Your task to perform on an android device: change your default location settings in chrome Image 0: 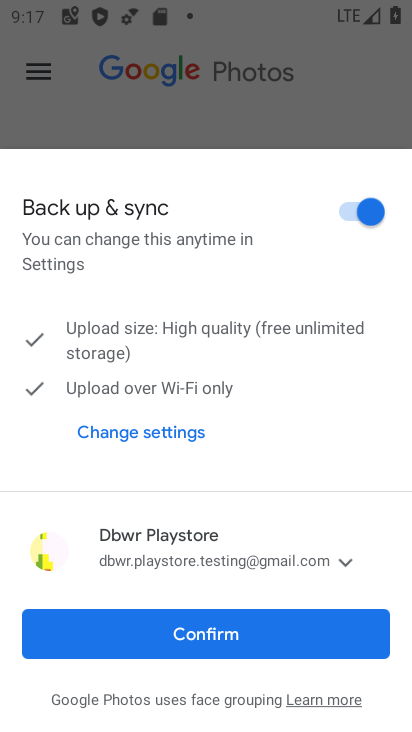
Step 0: click (252, 643)
Your task to perform on an android device: change your default location settings in chrome Image 1: 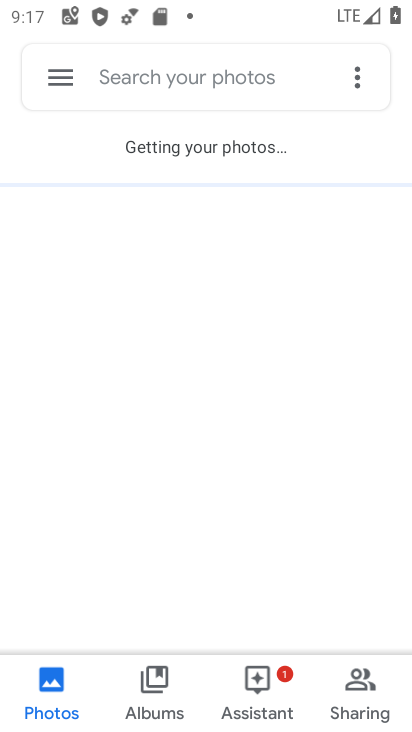
Step 1: press home button
Your task to perform on an android device: change your default location settings in chrome Image 2: 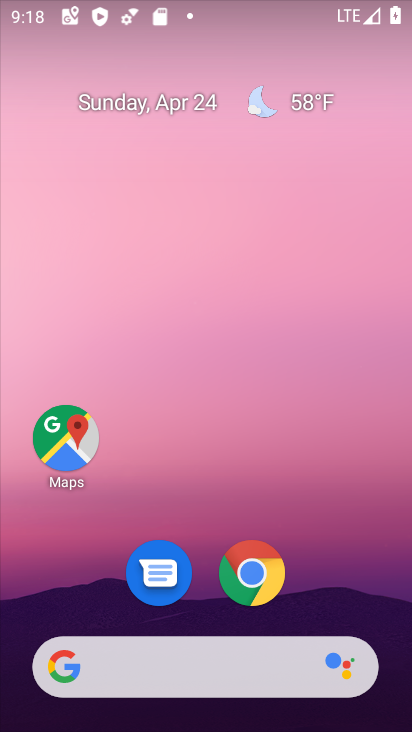
Step 2: click (259, 570)
Your task to perform on an android device: change your default location settings in chrome Image 3: 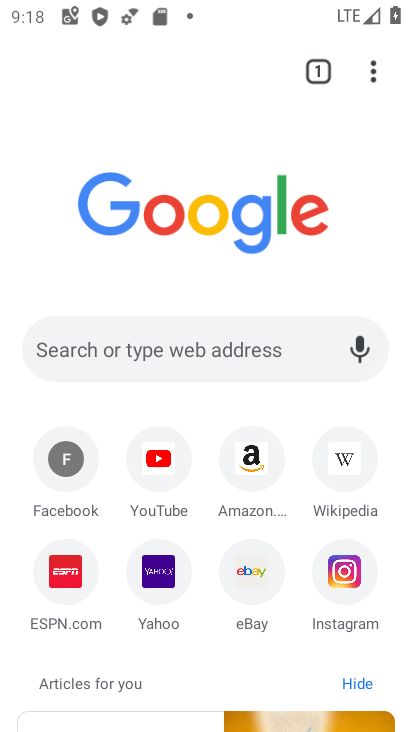
Step 3: click (380, 61)
Your task to perform on an android device: change your default location settings in chrome Image 4: 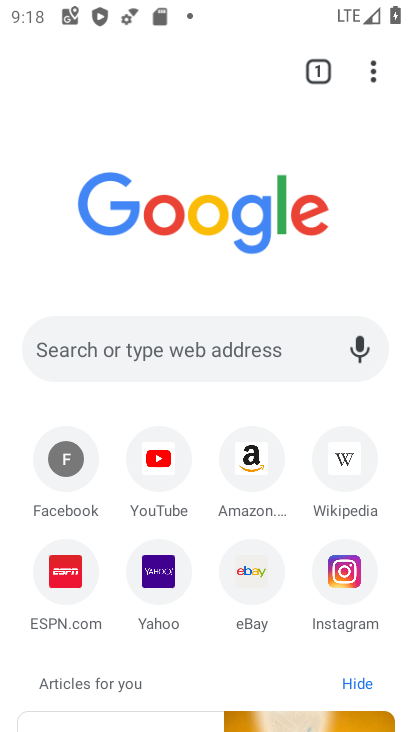
Step 4: drag from (379, 67) to (173, 550)
Your task to perform on an android device: change your default location settings in chrome Image 5: 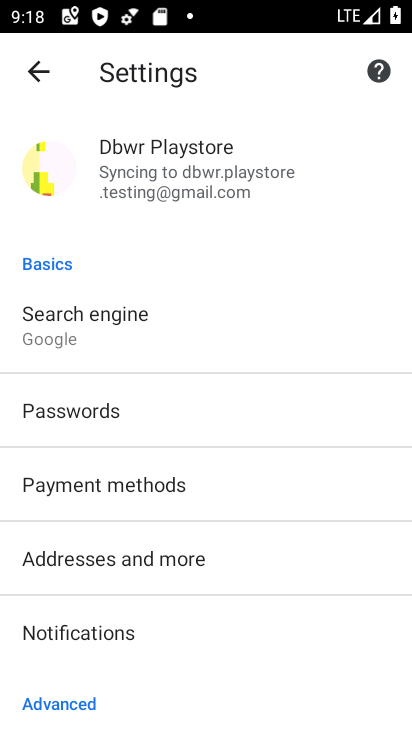
Step 5: drag from (218, 628) to (256, 151)
Your task to perform on an android device: change your default location settings in chrome Image 6: 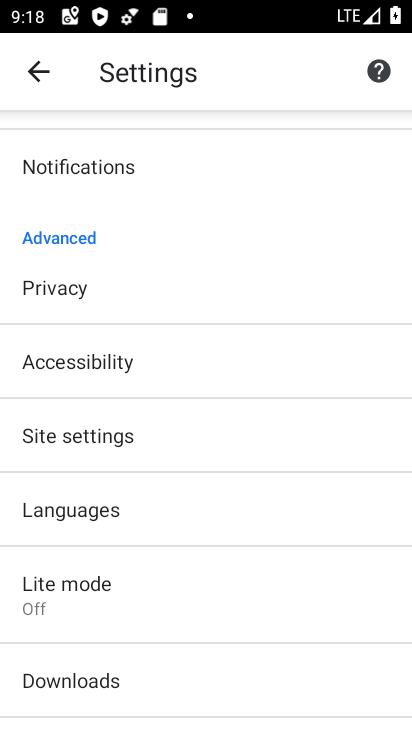
Step 6: click (156, 445)
Your task to perform on an android device: change your default location settings in chrome Image 7: 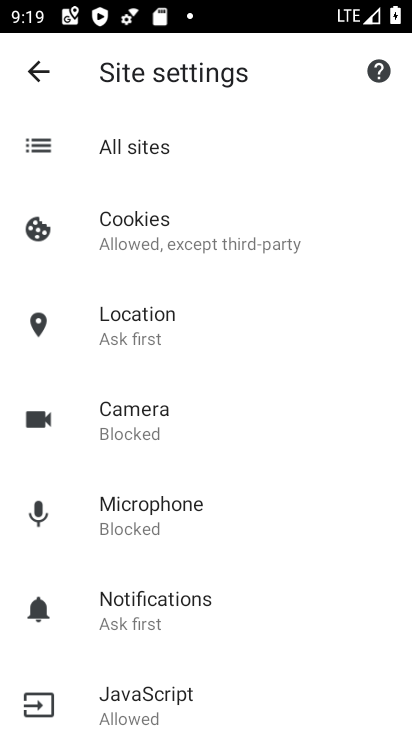
Step 7: click (149, 325)
Your task to perform on an android device: change your default location settings in chrome Image 8: 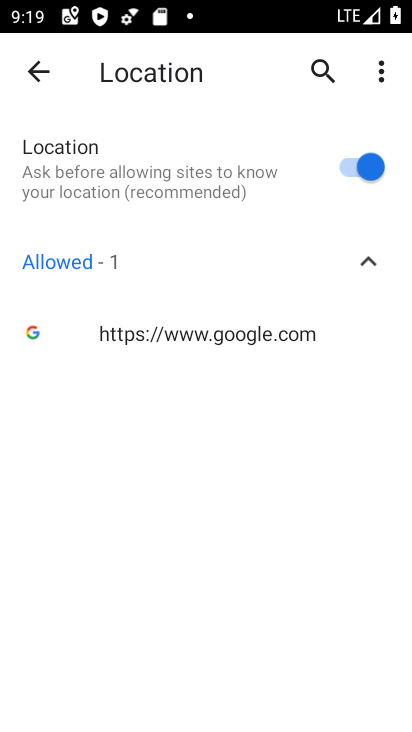
Step 8: click (356, 167)
Your task to perform on an android device: change your default location settings in chrome Image 9: 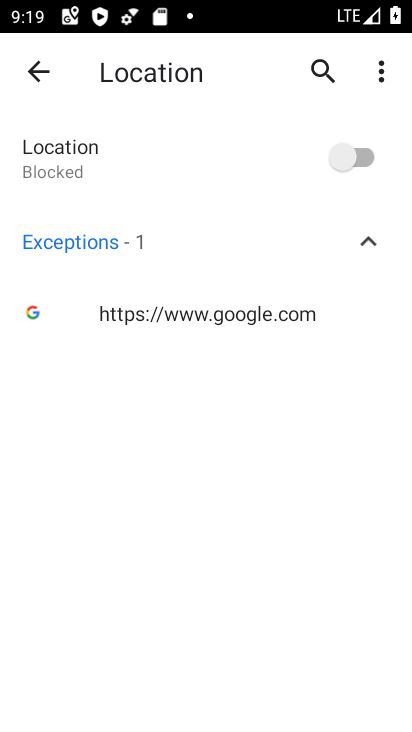
Step 9: task complete